Your task to perform on an android device: Go to Android settings Image 0: 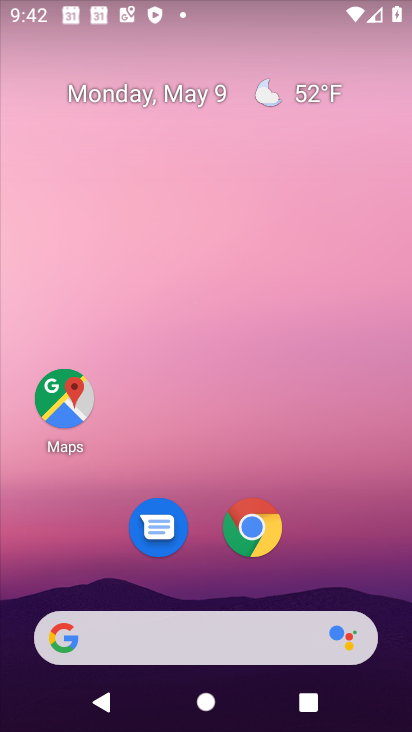
Step 0: drag from (227, 563) to (179, 20)
Your task to perform on an android device: Go to Android settings Image 1: 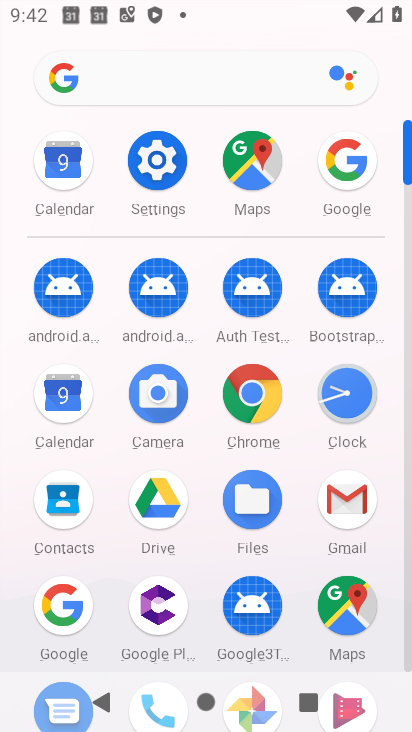
Step 1: click (155, 161)
Your task to perform on an android device: Go to Android settings Image 2: 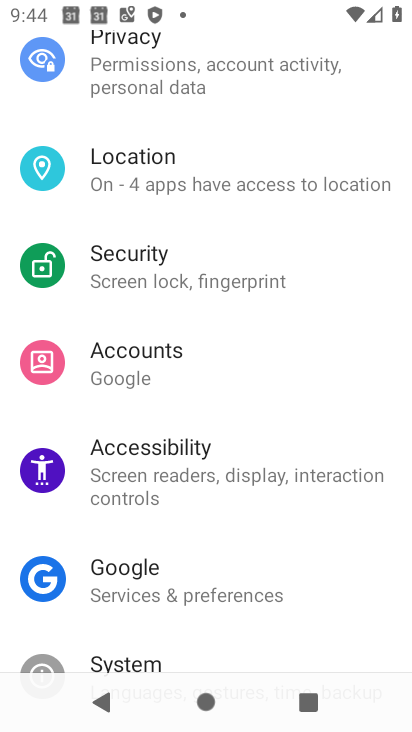
Step 2: task complete